Your task to perform on an android device: turn off location history Image 0: 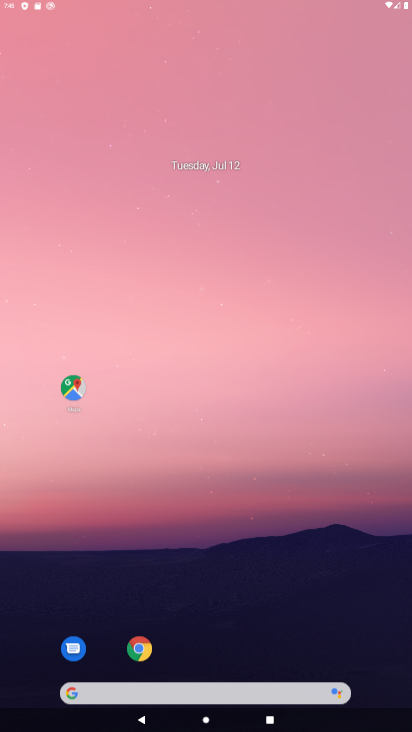
Step 0: drag from (283, 527) to (272, 166)
Your task to perform on an android device: turn off location history Image 1: 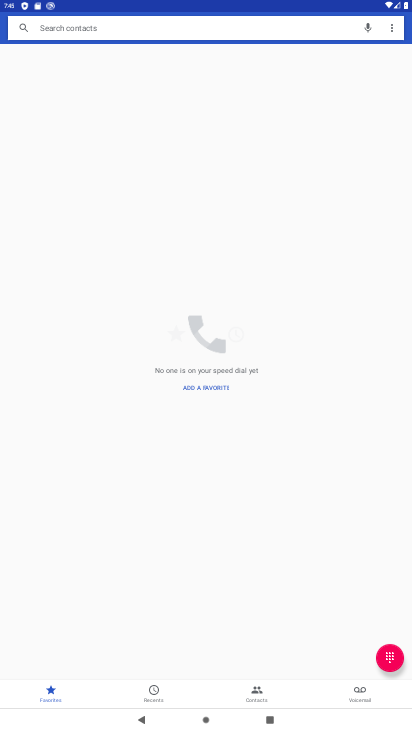
Step 1: press home button
Your task to perform on an android device: turn off location history Image 2: 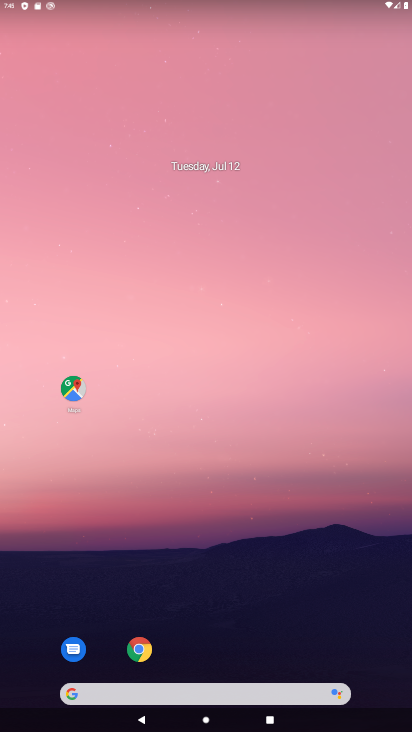
Step 2: drag from (310, 615) to (282, 90)
Your task to perform on an android device: turn off location history Image 3: 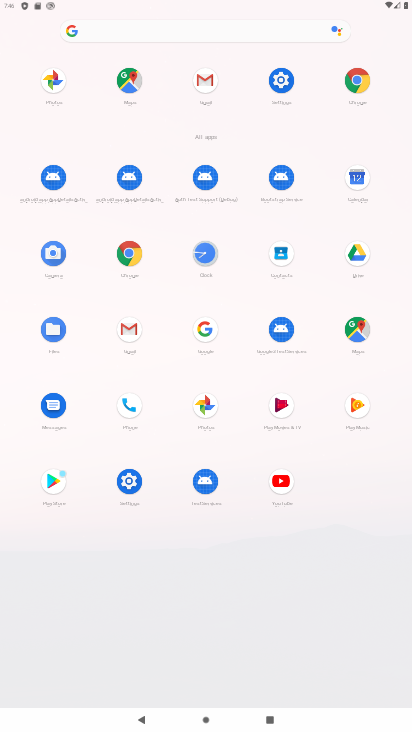
Step 3: click (279, 82)
Your task to perform on an android device: turn off location history Image 4: 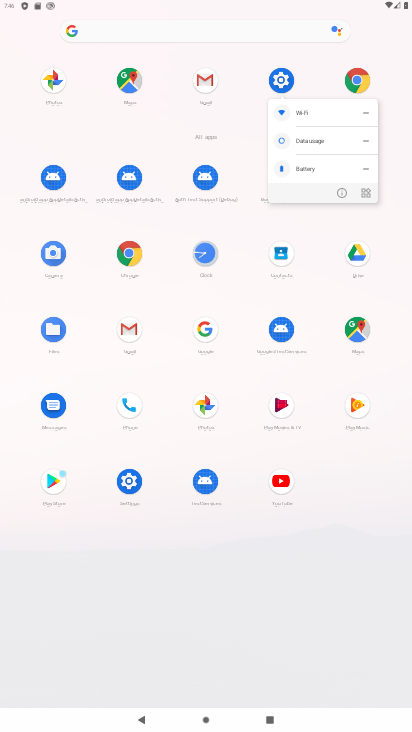
Step 4: click (279, 82)
Your task to perform on an android device: turn off location history Image 5: 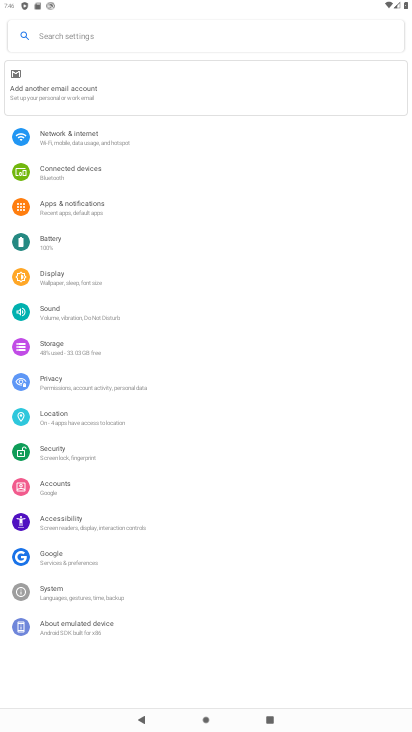
Step 5: click (75, 422)
Your task to perform on an android device: turn off location history Image 6: 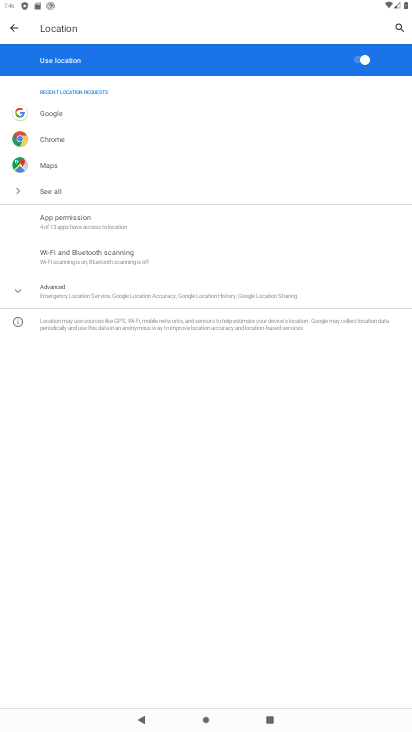
Step 6: click (67, 295)
Your task to perform on an android device: turn off location history Image 7: 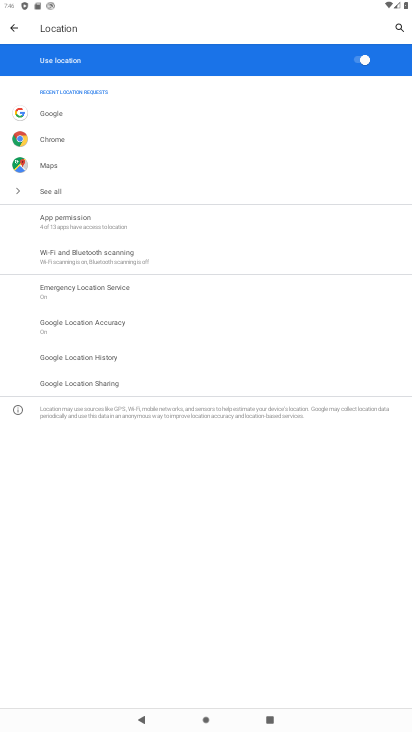
Step 7: click (91, 356)
Your task to perform on an android device: turn off location history Image 8: 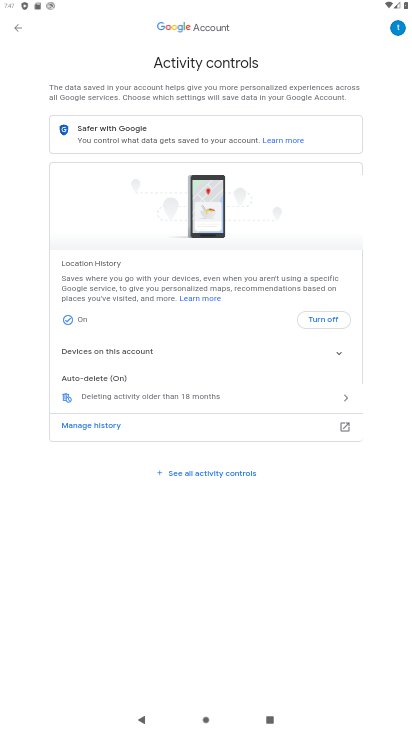
Step 8: click (328, 318)
Your task to perform on an android device: turn off location history Image 9: 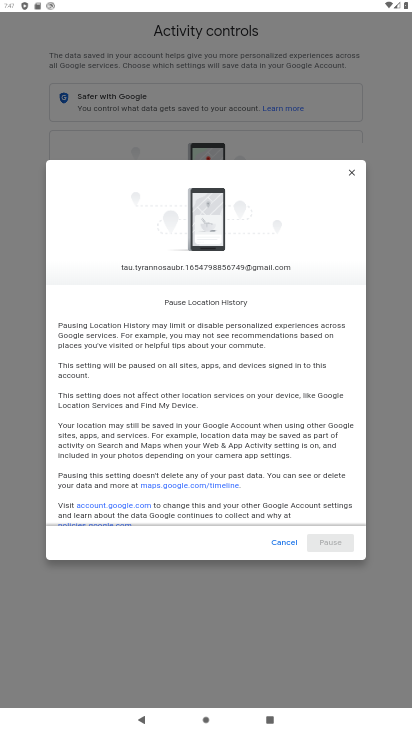
Step 9: drag from (290, 481) to (282, 257)
Your task to perform on an android device: turn off location history Image 10: 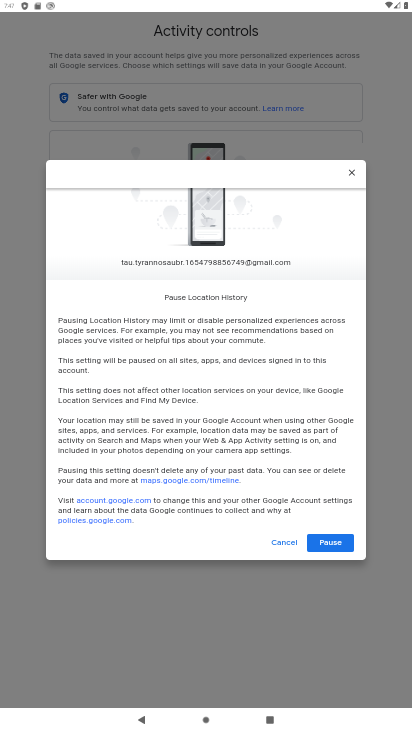
Step 10: click (336, 552)
Your task to perform on an android device: turn off location history Image 11: 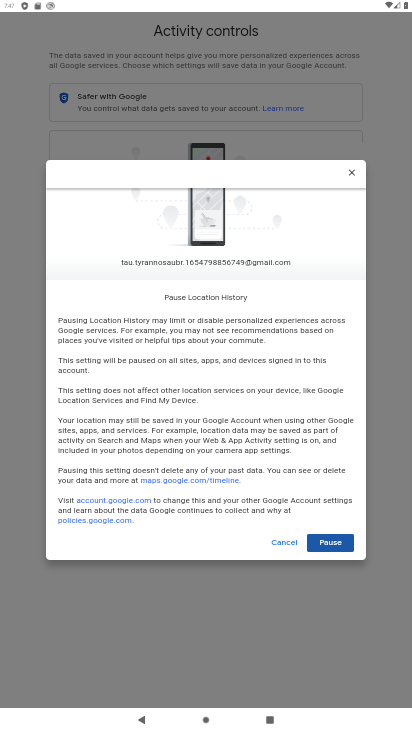
Step 11: click (337, 540)
Your task to perform on an android device: turn off location history Image 12: 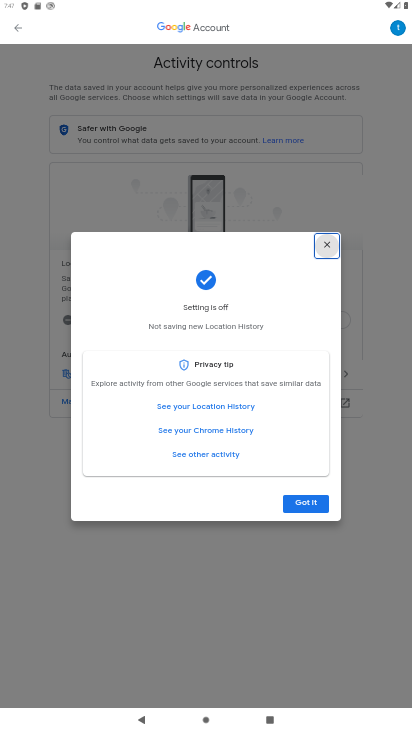
Step 12: task complete